Your task to perform on an android device: turn on wifi Image 0: 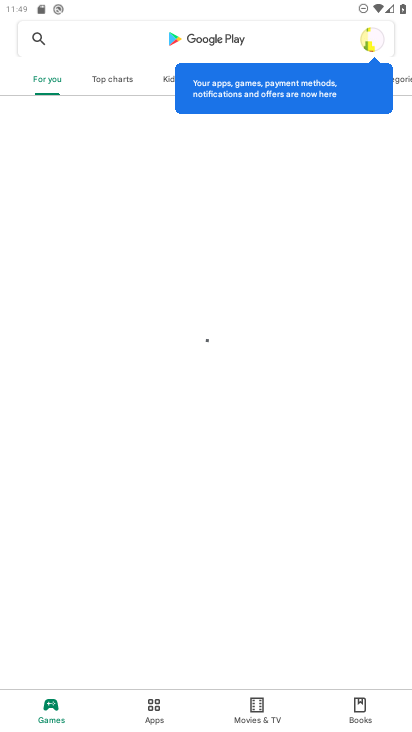
Step 0: press home button
Your task to perform on an android device: turn on wifi Image 1: 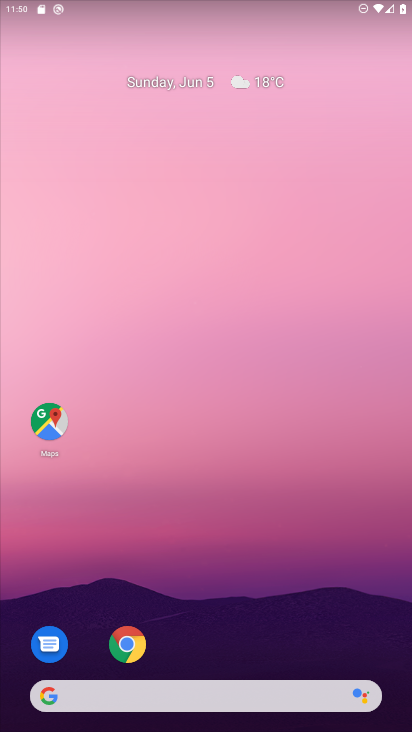
Step 1: drag from (265, 683) to (310, 173)
Your task to perform on an android device: turn on wifi Image 2: 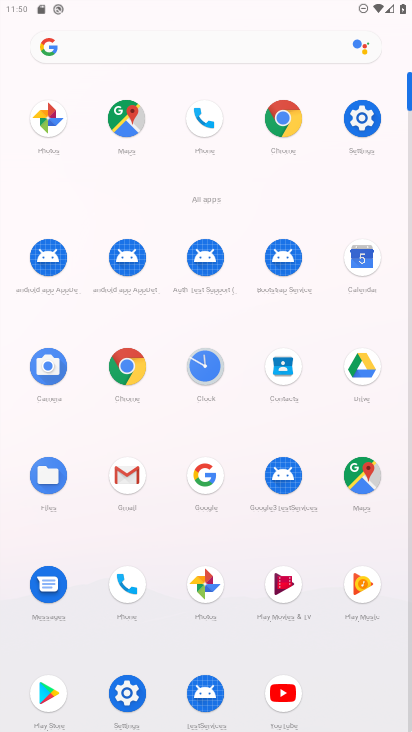
Step 2: click (344, 118)
Your task to perform on an android device: turn on wifi Image 3: 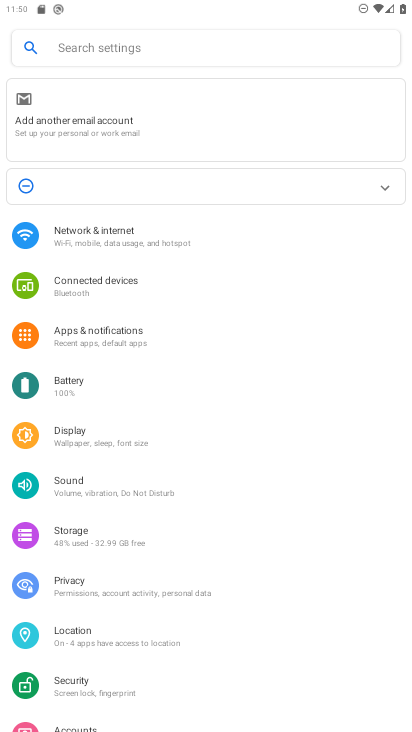
Step 3: click (136, 241)
Your task to perform on an android device: turn on wifi Image 4: 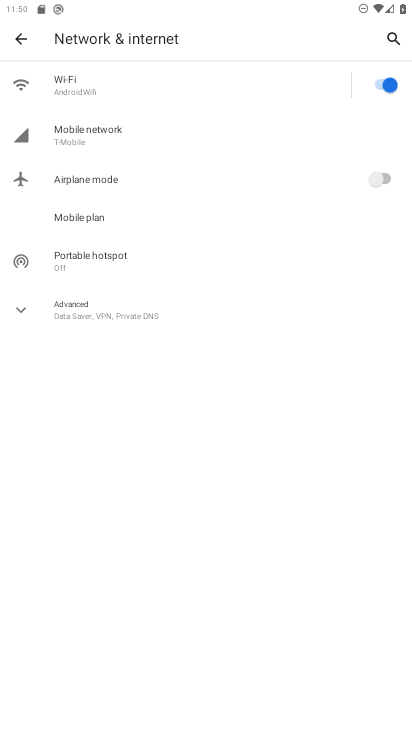
Step 4: click (179, 68)
Your task to perform on an android device: turn on wifi Image 5: 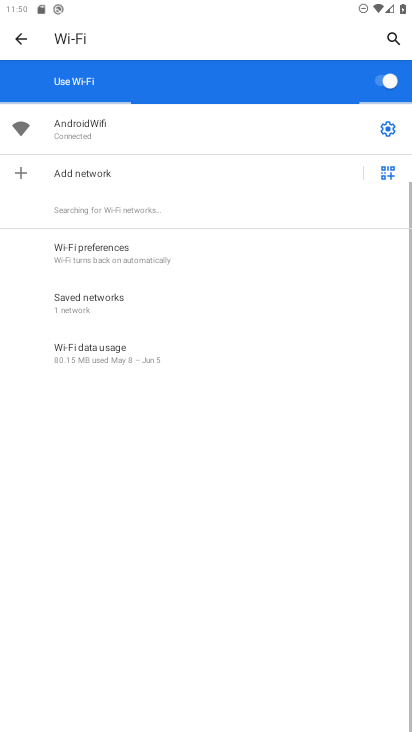
Step 5: click (360, 80)
Your task to perform on an android device: turn on wifi Image 6: 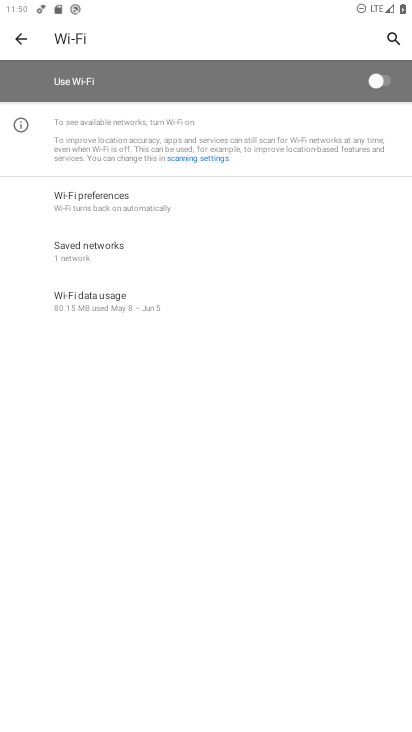
Step 6: click (383, 78)
Your task to perform on an android device: turn on wifi Image 7: 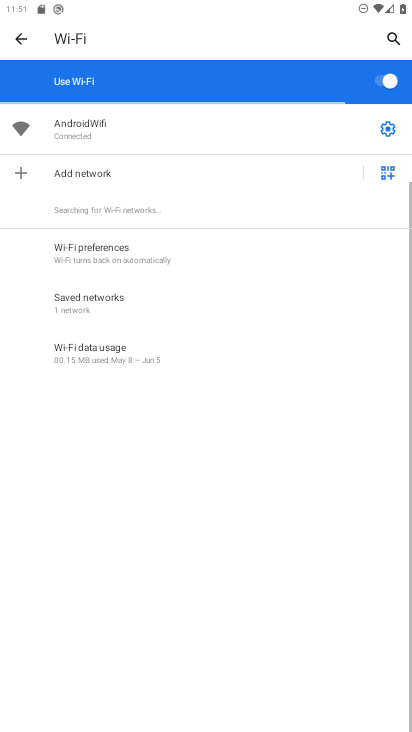
Step 7: task complete